Your task to perform on an android device: Go to Wikipedia Image 0: 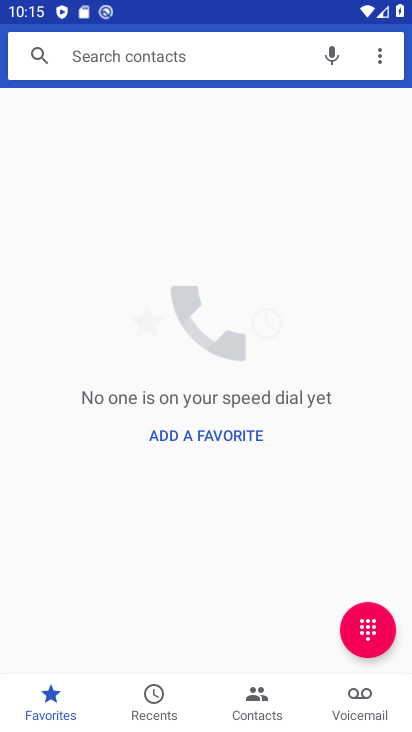
Step 0: press back button
Your task to perform on an android device: Go to Wikipedia Image 1: 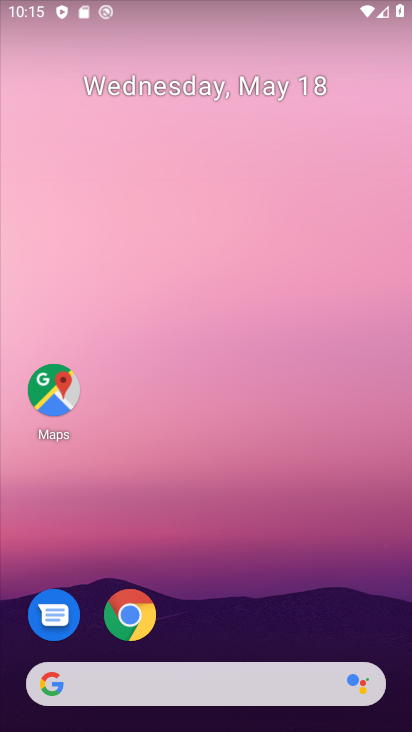
Step 1: drag from (275, 596) to (154, 3)
Your task to perform on an android device: Go to Wikipedia Image 2: 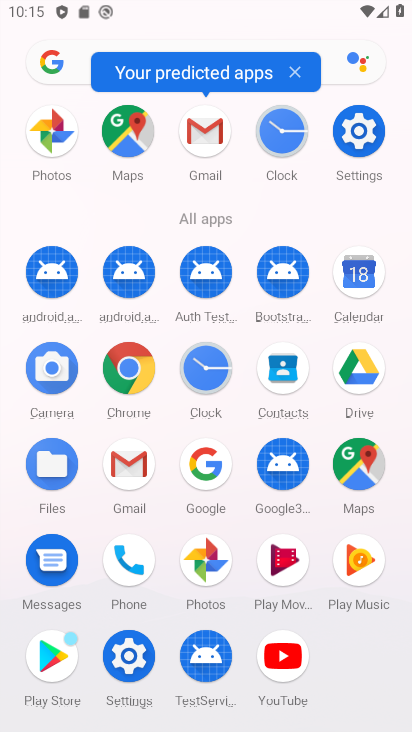
Step 2: click (123, 362)
Your task to perform on an android device: Go to Wikipedia Image 3: 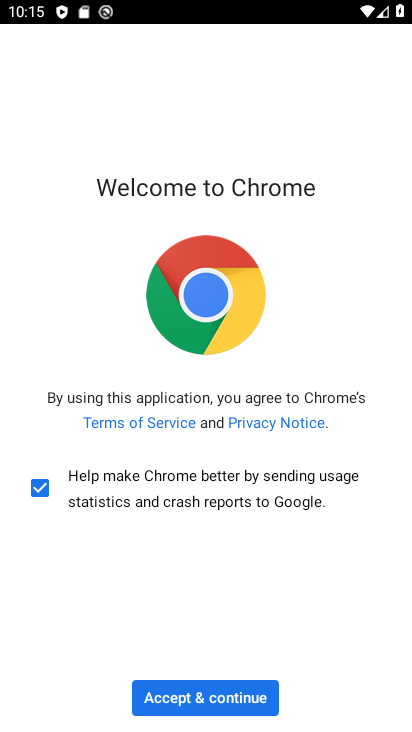
Step 3: click (181, 697)
Your task to perform on an android device: Go to Wikipedia Image 4: 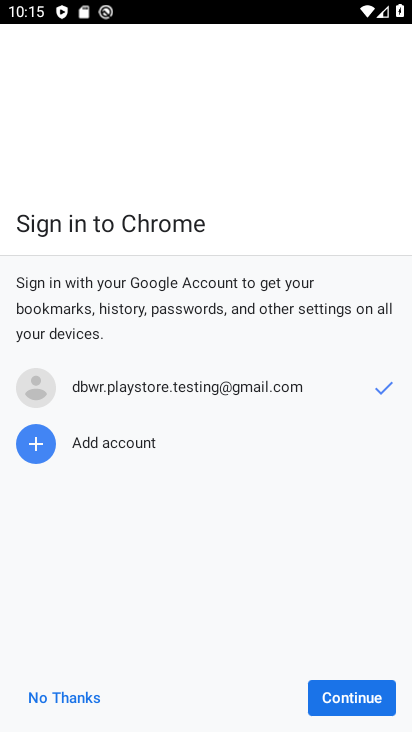
Step 4: click (348, 697)
Your task to perform on an android device: Go to Wikipedia Image 5: 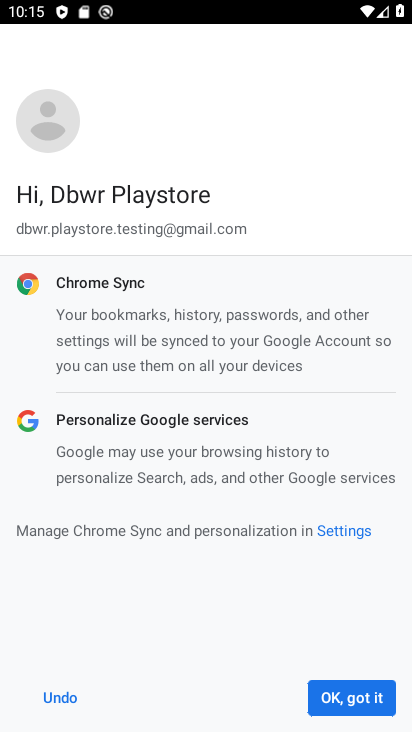
Step 5: click (348, 697)
Your task to perform on an android device: Go to Wikipedia Image 6: 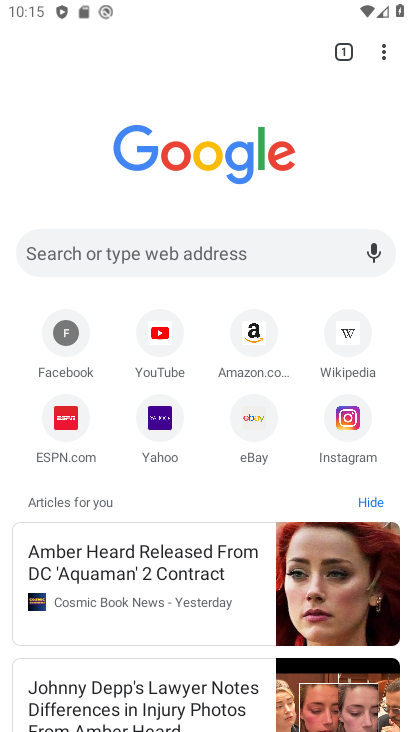
Step 6: click (352, 328)
Your task to perform on an android device: Go to Wikipedia Image 7: 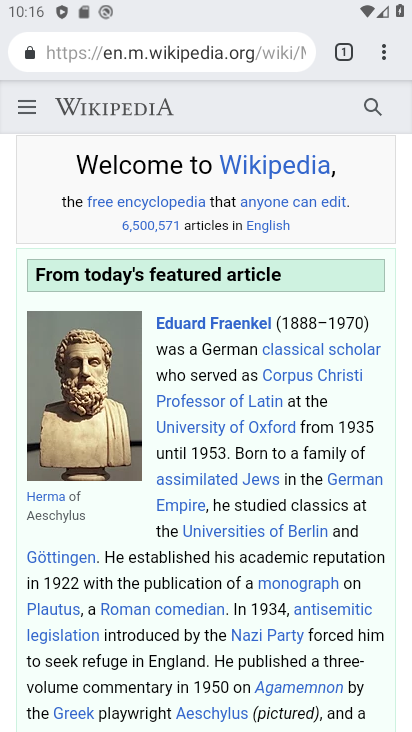
Step 7: task complete